Your task to perform on an android device: Open the phone app and click the voicemail tab. Image 0: 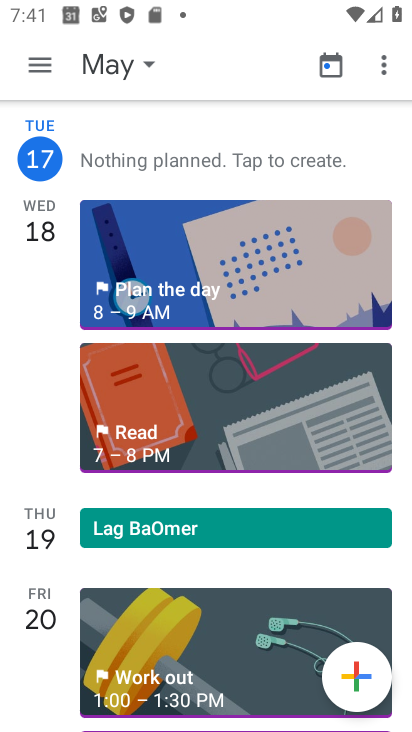
Step 0: press home button
Your task to perform on an android device: Open the phone app and click the voicemail tab. Image 1: 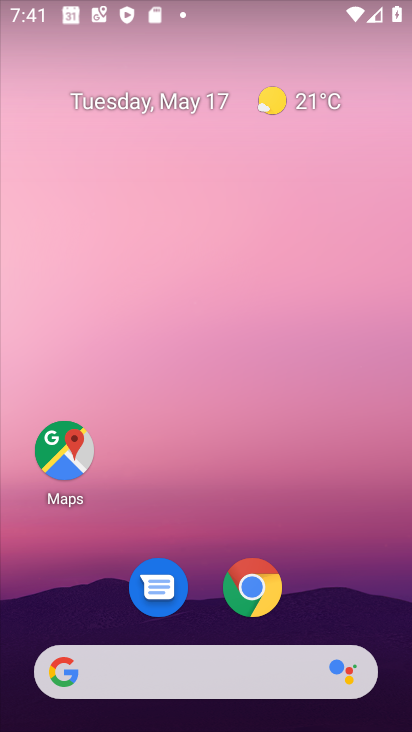
Step 1: drag from (337, 598) to (332, 200)
Your task to perform on an android device: Open the phone app and click the voicemail tab. Image 2: 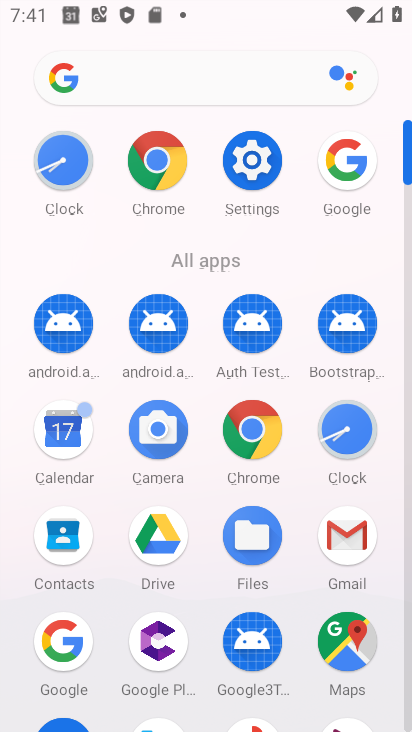
Step 2: drag from (393, 624) to (396, 449)
Your task to perform on an android device: Open the phone app and click the voicemail tab. Image 3: 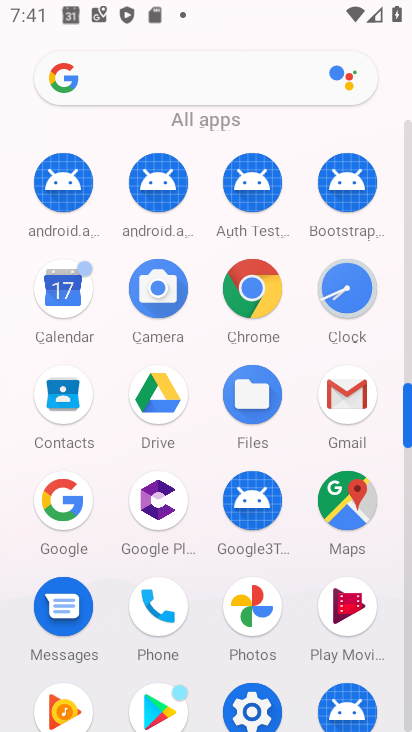
Step 3: drag from (401, 659) to (390, 474)
Your task to perform on an android device: Open the phone app and click the voicemail tab. Image 4: 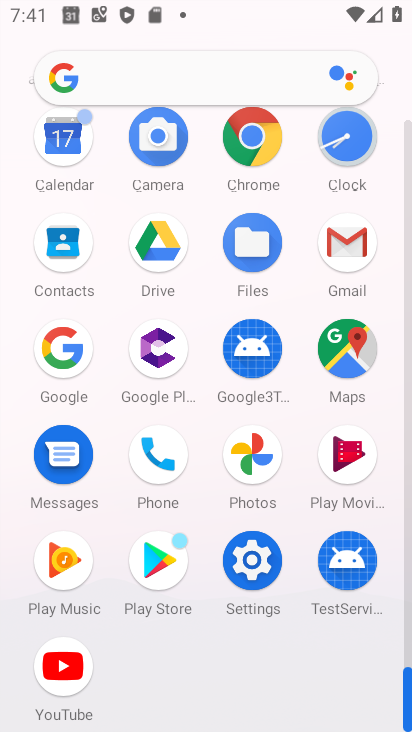
Step 4: click (153, 470)
Your task to perform on an android device: Open the phone app and click the voicemail tab. Image 5: 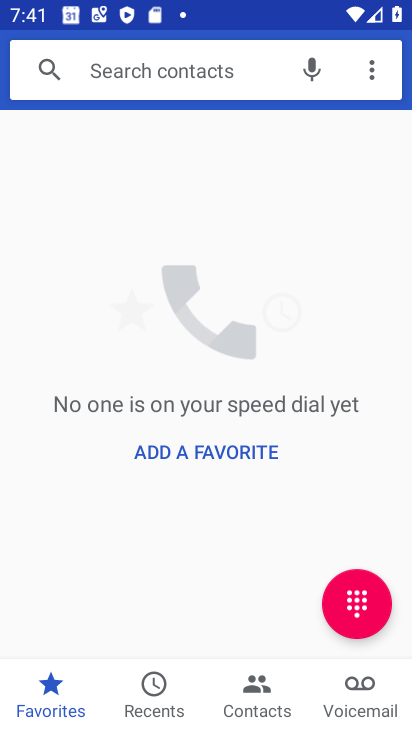
Step 5: click (362, 698)
Your task to perform on an android device: Open the phone app and click the voicemail tab. Image 6: 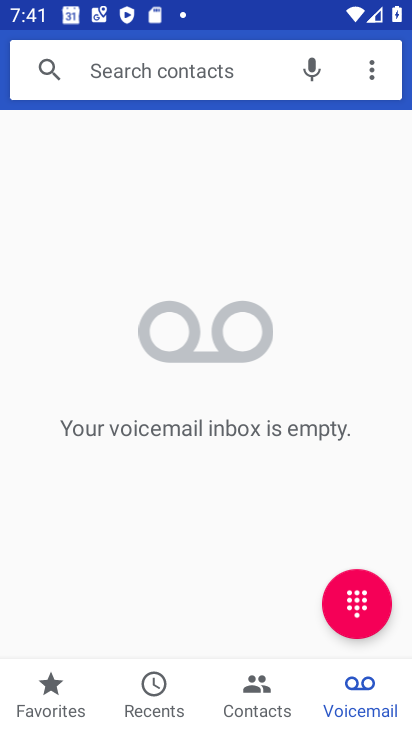
Step 6: task complete